Your task to perform on an android device: toggle priority inbox in the gmail app Image 0: 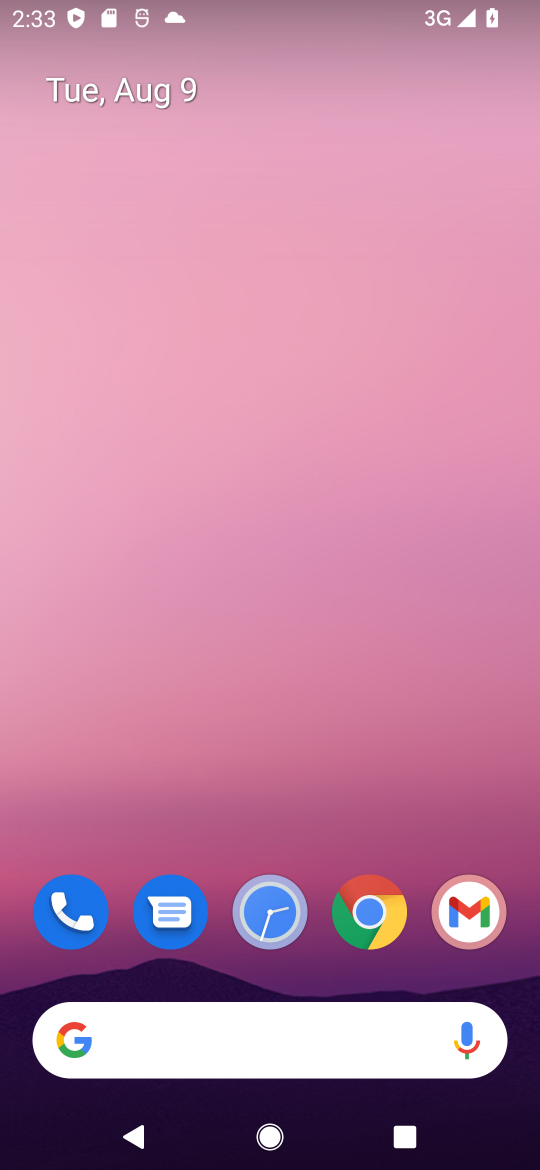
Step 0: click (467, 897)
Your task to perform on an android device: toggle priority inbox in the gmail app Image 1: 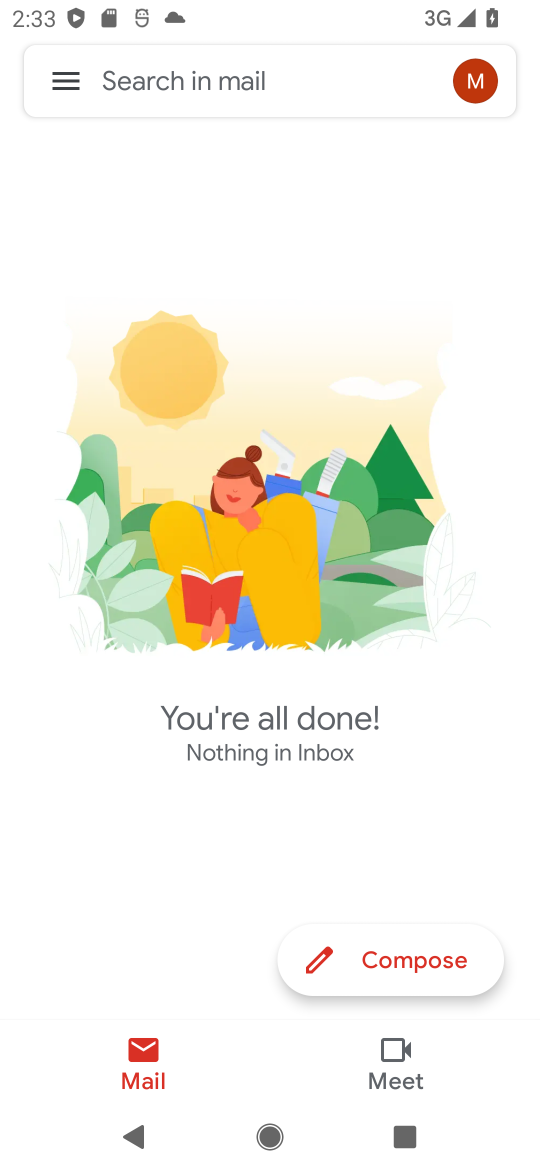
Step 1: click (65, 68)
Your task to perform on an android device: toggle priority inbox in the gmail app Image 2: 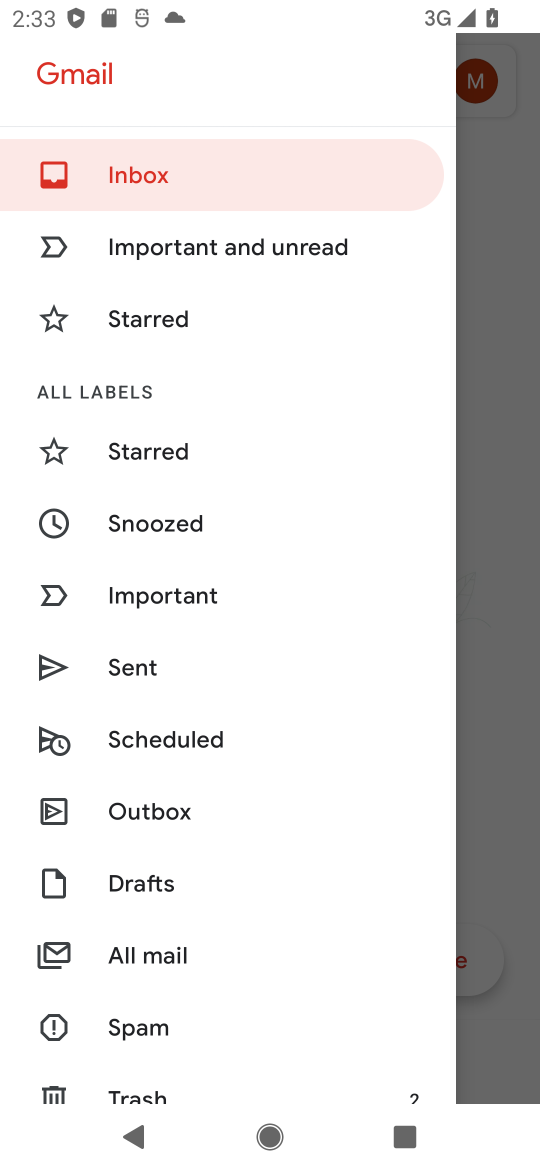
Step 2: drag from (228, 999) to (228, 559)
Your task to perform on an android device: toggle priority inbox in the gmail app Image 3: 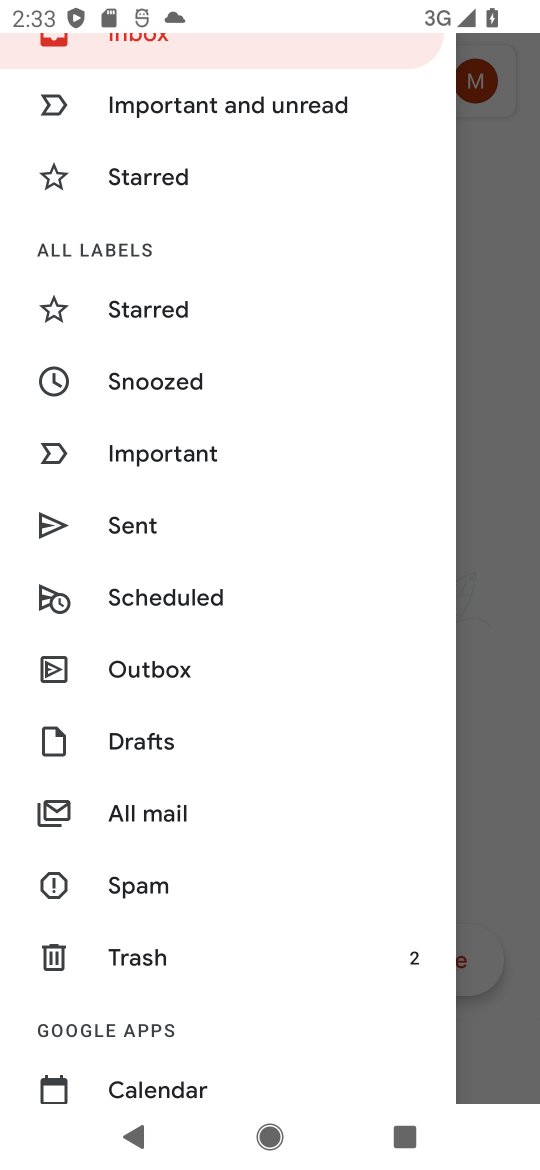
Step 3: drag from (236, 867) to (295, 214)
Your task to perform on an android device: toggle priority inbox in the gmail app Image 4: 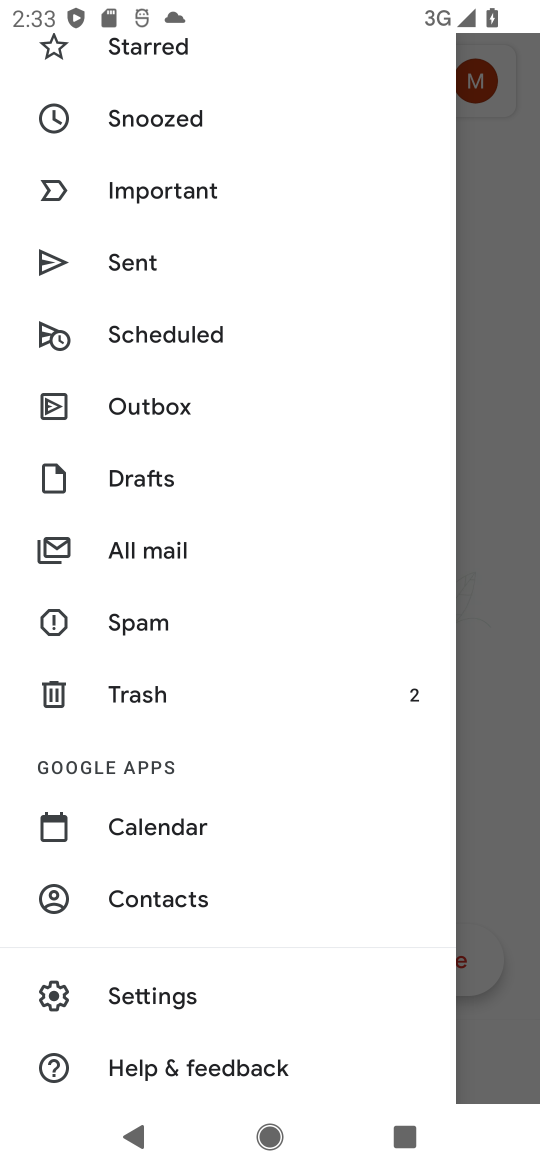
Step 4: click (151, 988)
Your task to perform on an android device: toggle priority inbox in the gmail app Image 5: 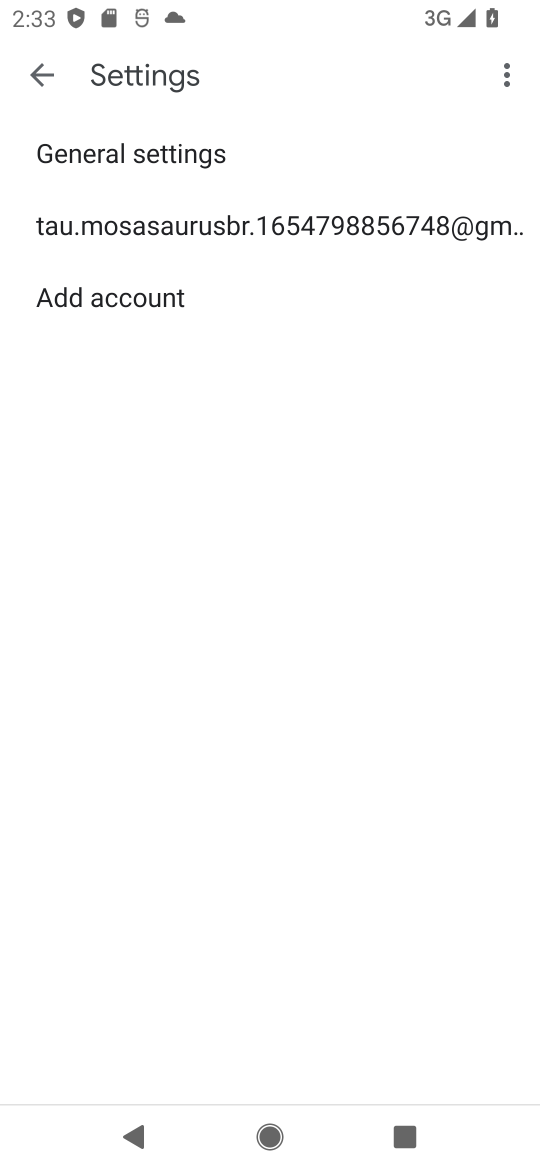
Step 5: click (163, 219)
Your task to perform on an android device: toggle priority inbox in the gmail app Image 6: 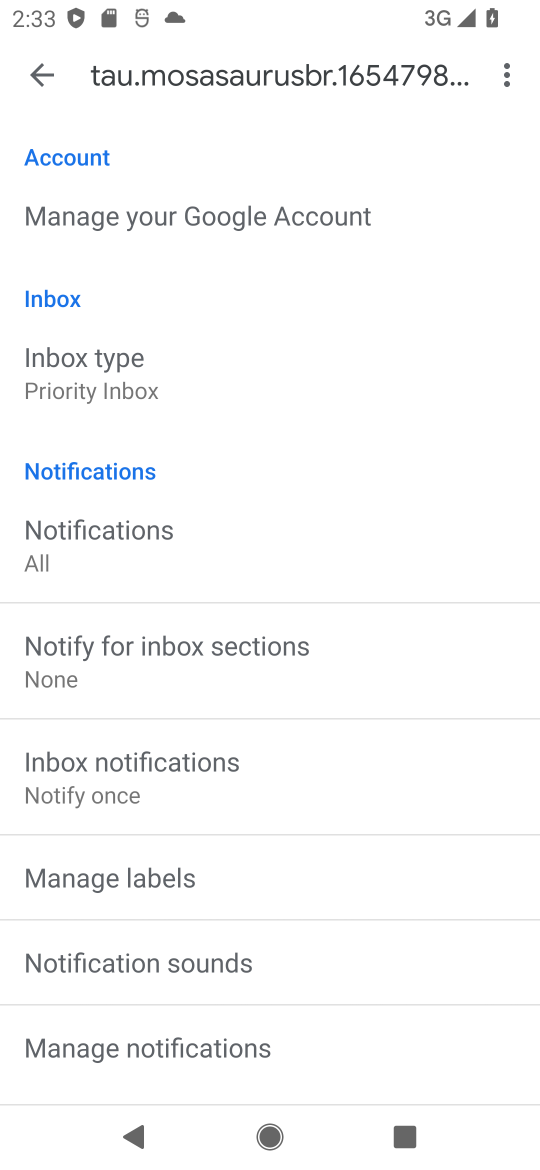
Step 6: drag from (286, 857) to (301, 208)
Your task to perform on an android device: toggle priority inbox in the gmail app Image 7: 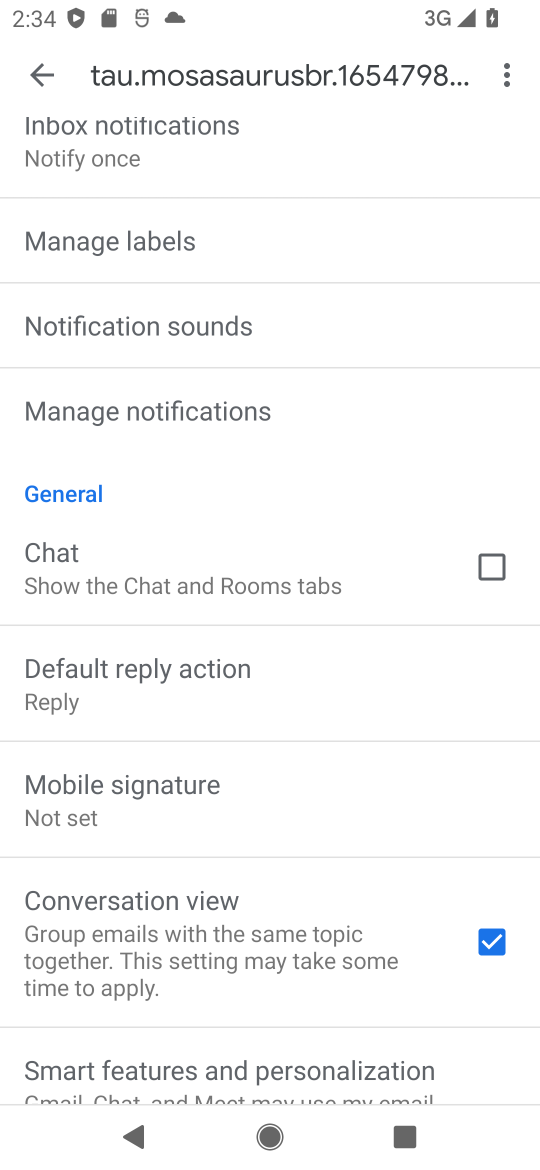
Step 7: drag from (239, 156) to (129, 635)
Your task to perform on an android device: toggle priority inbox in the gmail app Image 8: 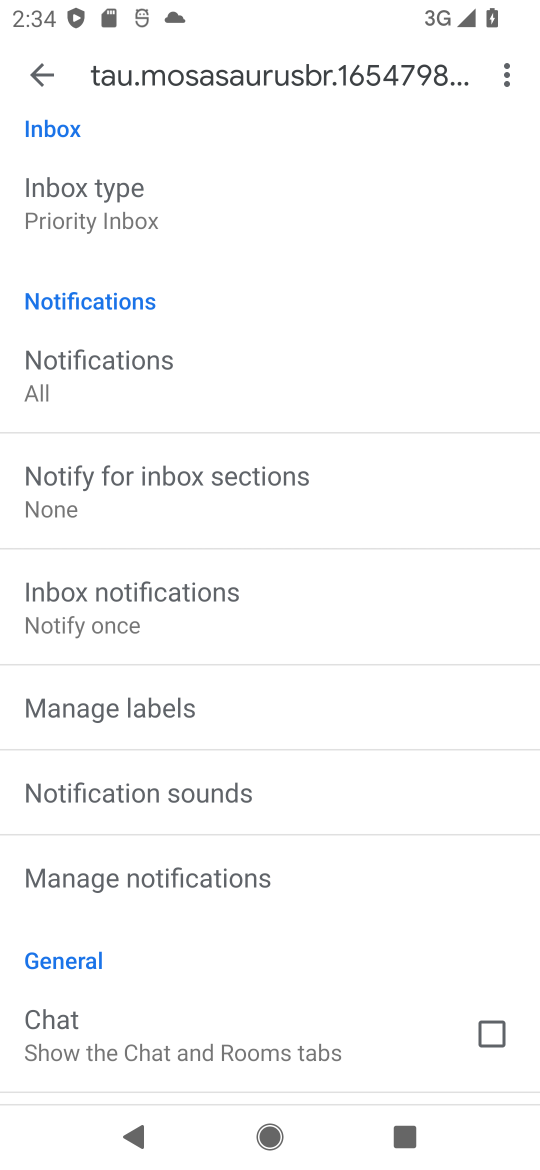
Step 8: click (73, 188)
Your task to perform on an android device: toggle priority inbox in the gmail app Image 9: 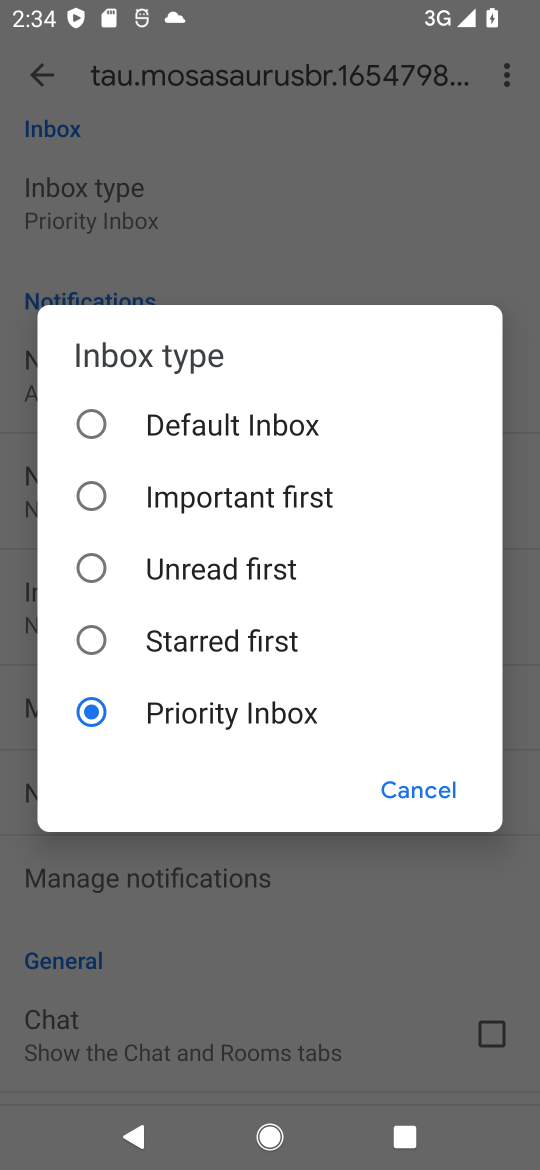
Step 9: click (96, 429)
Your task to perform on an android device: toggle priority inbox in the gmail app Image 10: 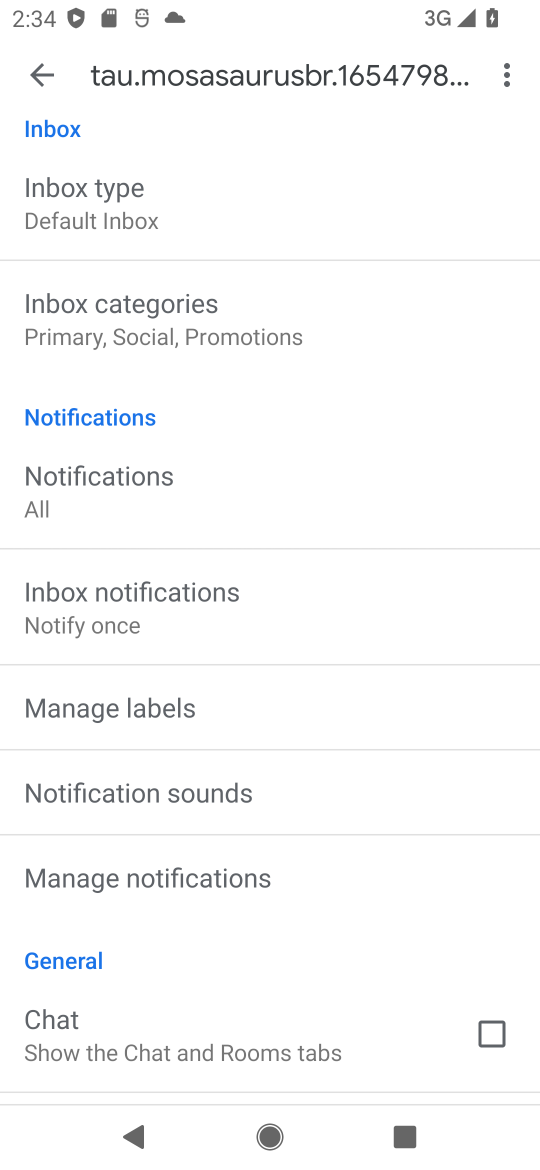
Step 10: task complete